Your task to perform on an android device: check battery use Image 0: 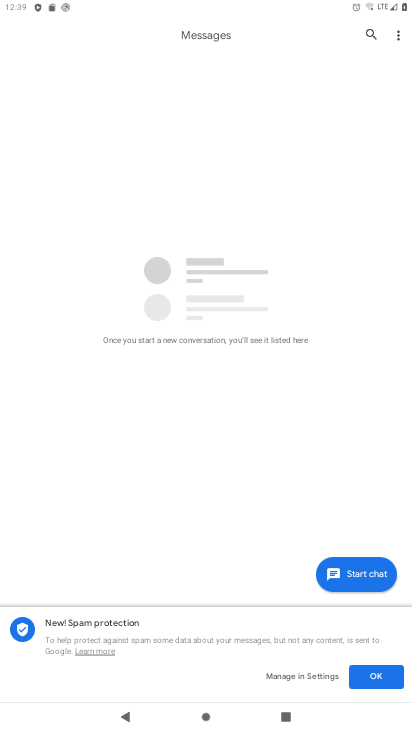
Step 0: click (217, 654)
Your task to perform on an android device: check battery use Image 1: 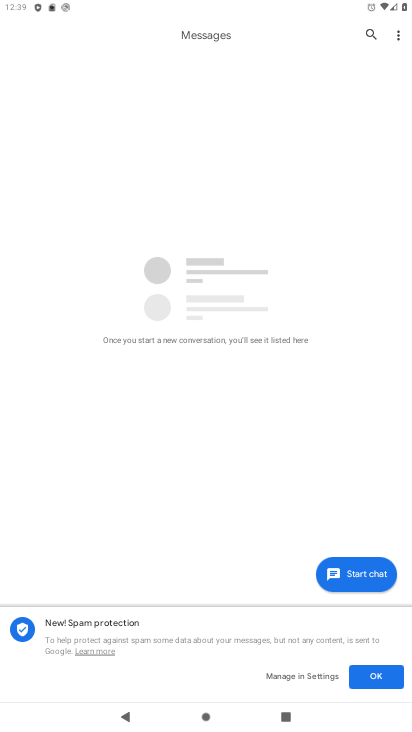
Step 1: press home button
Your task to perform on an android device: check battery use Image 2: 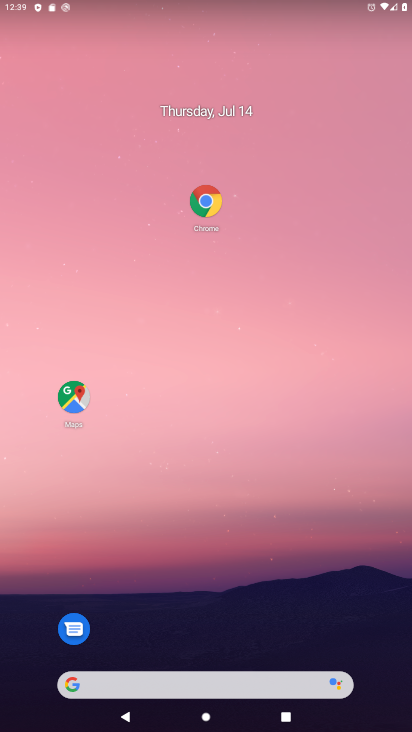
Step 2: drag from (256, 654) to (195, 22)
Your task to perform on an android device: check battery use Image 3: 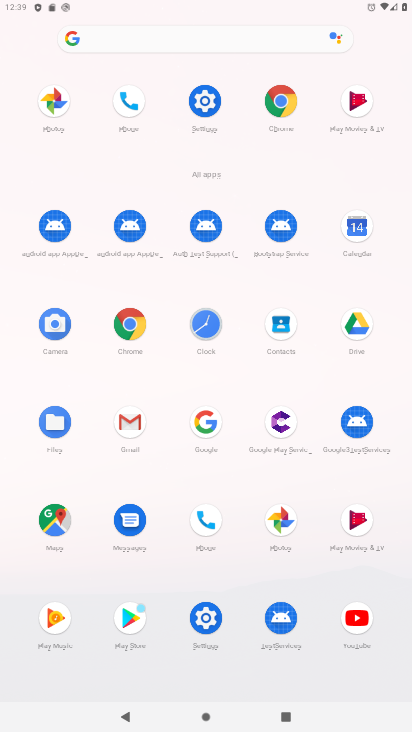
Step 3: click (201, 89)
Your task to perform on an android device: check battery use Image 4: 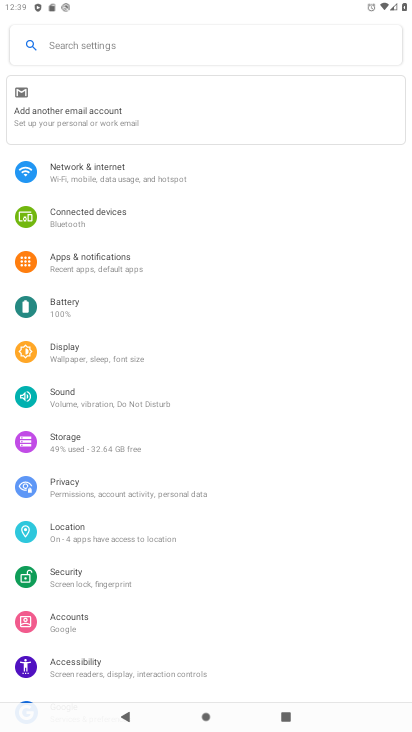
Step 4: click (74, 309)
Your task to perform on an android device: check battery use Image 5: 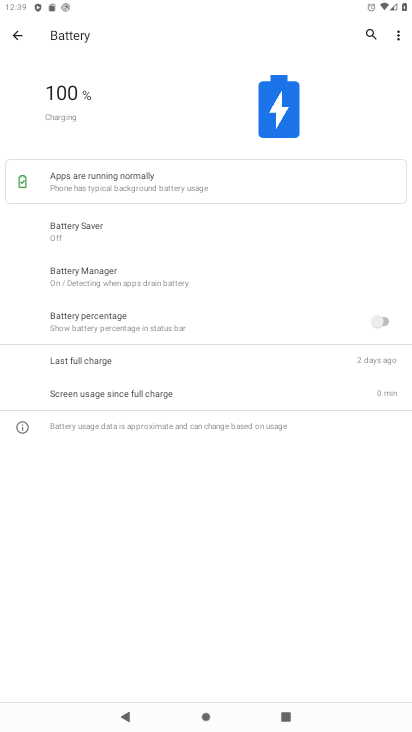
Step 5: task complete